Your task to perform on an android device: uninstall "Chime – Mobile Banking" Image 0: 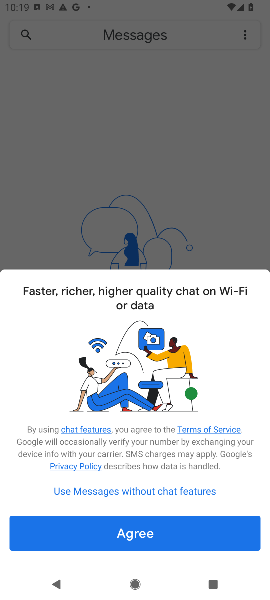
Step 0: press home button
Your task to perform on an android device: uninstall "Chime – Mobile Banking" Image 1: 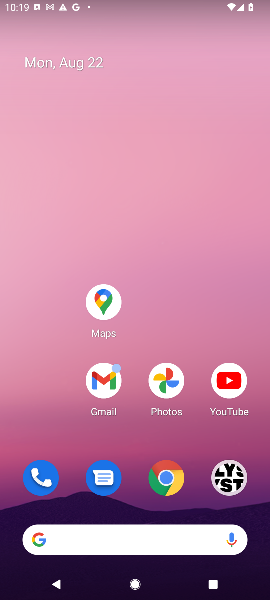
Step 1: drag from (143, 518) to (157, 215)
Your task to perform on an android device: uninstall "Chime – Mobile Banking" Image 2: 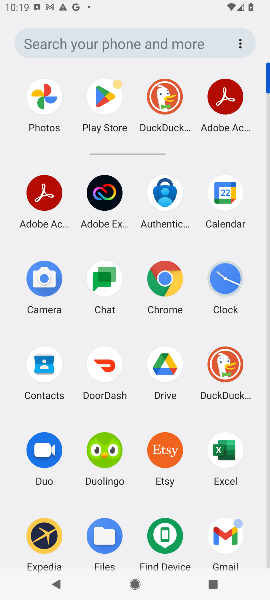
Step 2: click (108, 108)
Your task to perform on an android device: uninstall "Chime – Mobile Banking" Image 3: 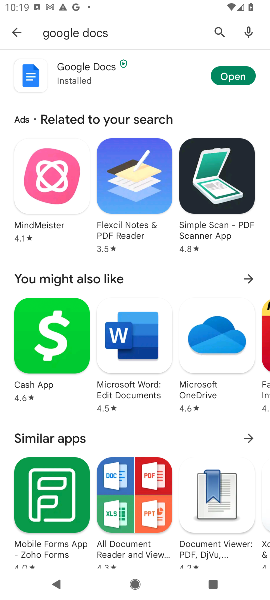
Step 3: click (219, 42)
Your task to perform on an android device: uninstall "Chime – Mobile Banking" Image 4: 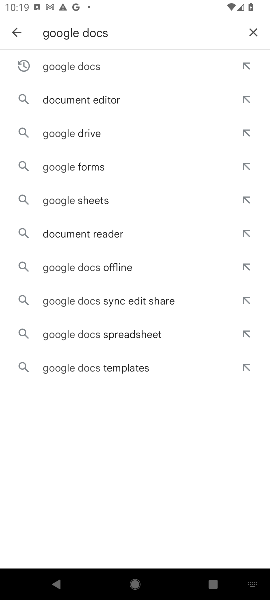
Step 4: click (257, 38)
Your task to perform on an android device: uninstall "Chime – Mobile Banking" Image 5: 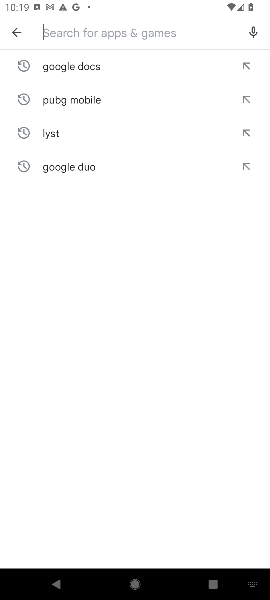
Step 5: type "chime"
Your task to perform on an android device: uninstall "Chime – Mobile Banking" Image 6: 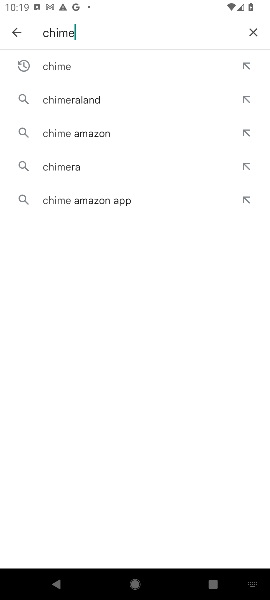
Step 6: click (122, 77)
Your task to perform on an android device: uninstall "Chime – Mobile Banking" Image 7: 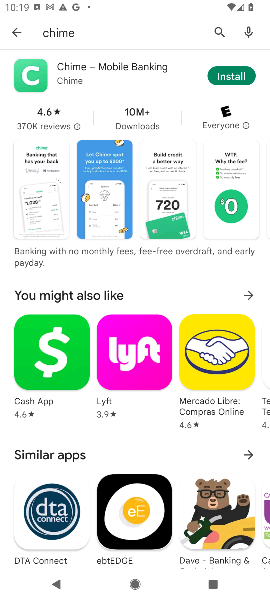
Step 7: click (221, 72)
Your task to perform on an android device: uninstall "Chime – Mobile Banking" Image 8: 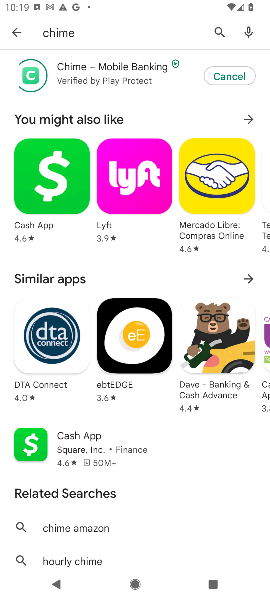
Step 8: task complete